Your task to perform on an android device: Search for energizer triple a on target.com, select the first entry, add it to the cart, then select checkout. Image 0: 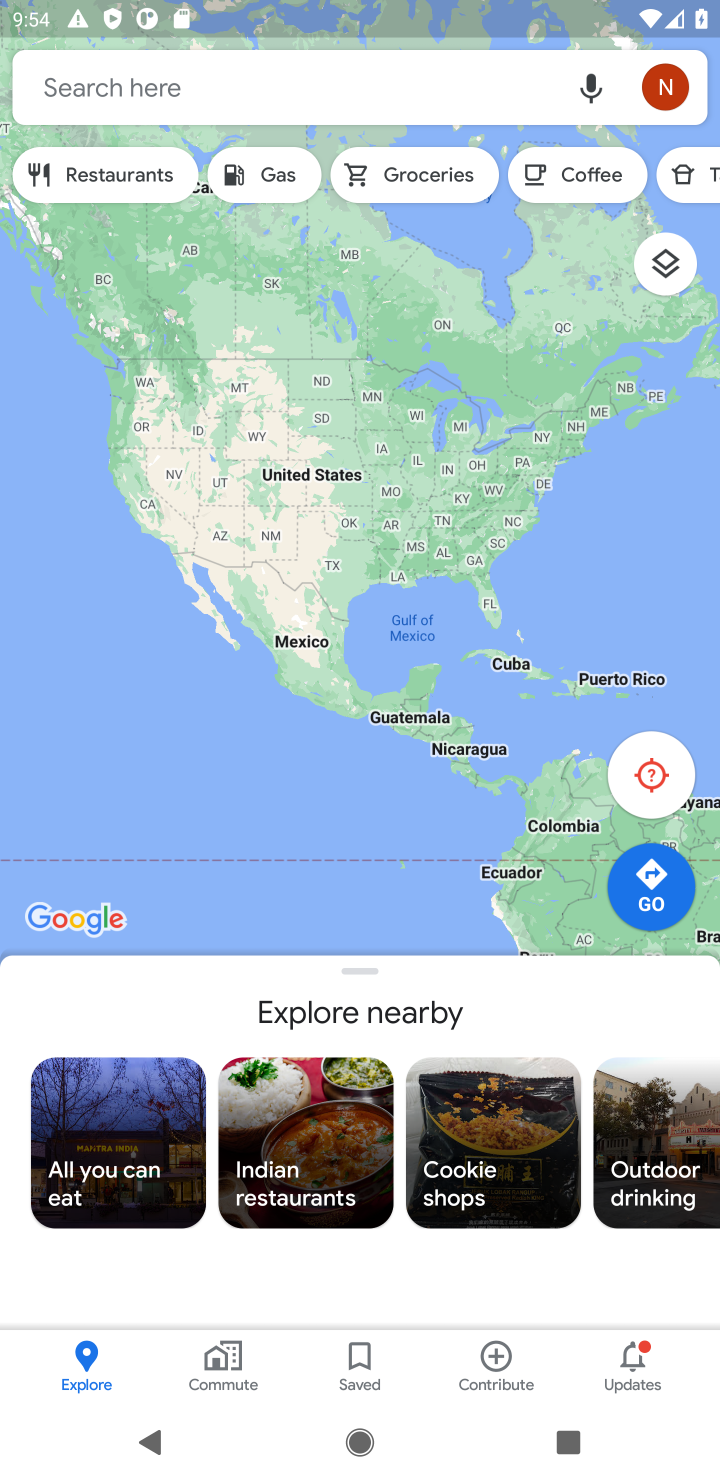
Step 0: press home button
Your task to perform on an android device: Search for energizer triple a on target.com, select the first entry, add it to the cart, then select checkout. Image 1: 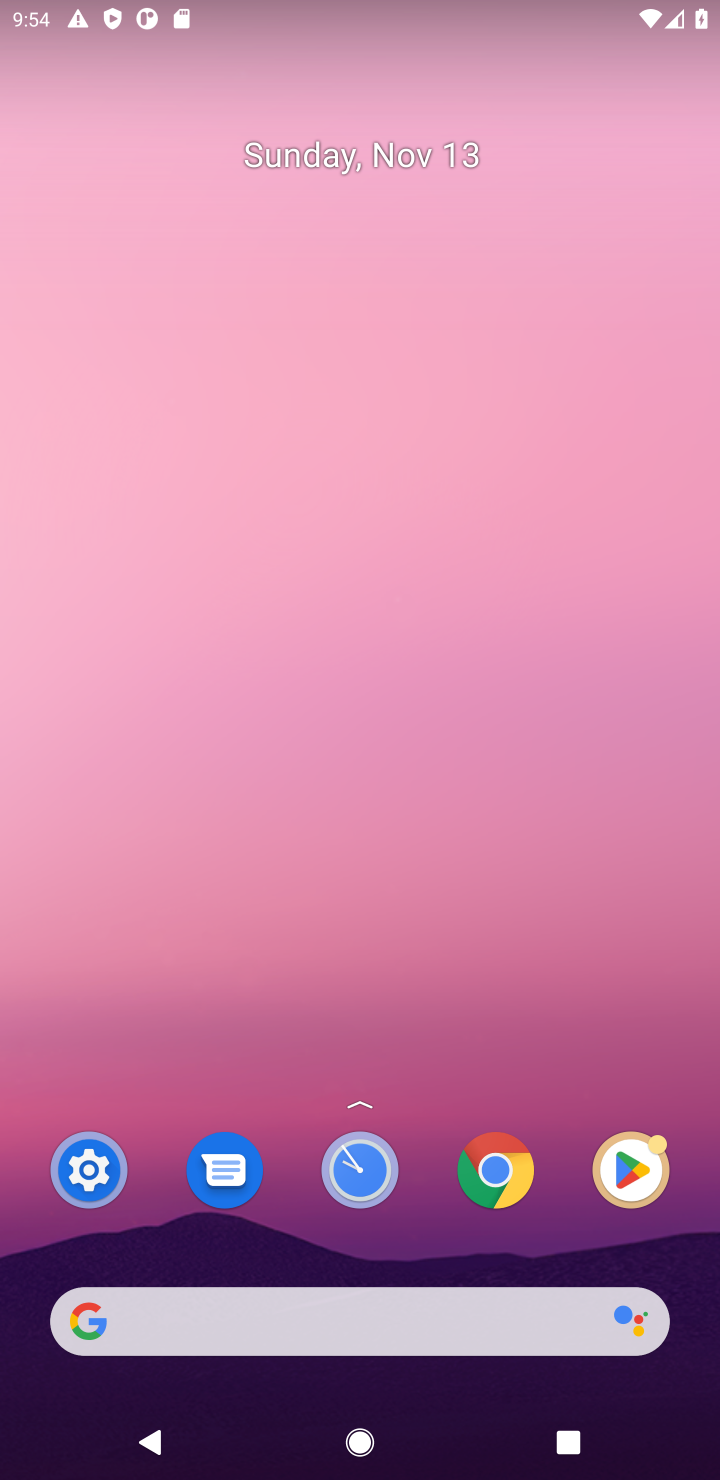
Step 1: click (340, 1338)
Your task to perform on an android device: Search for energizer triple a on target.com, select the first entry, add it to the cart, then select checkout. Image 2: 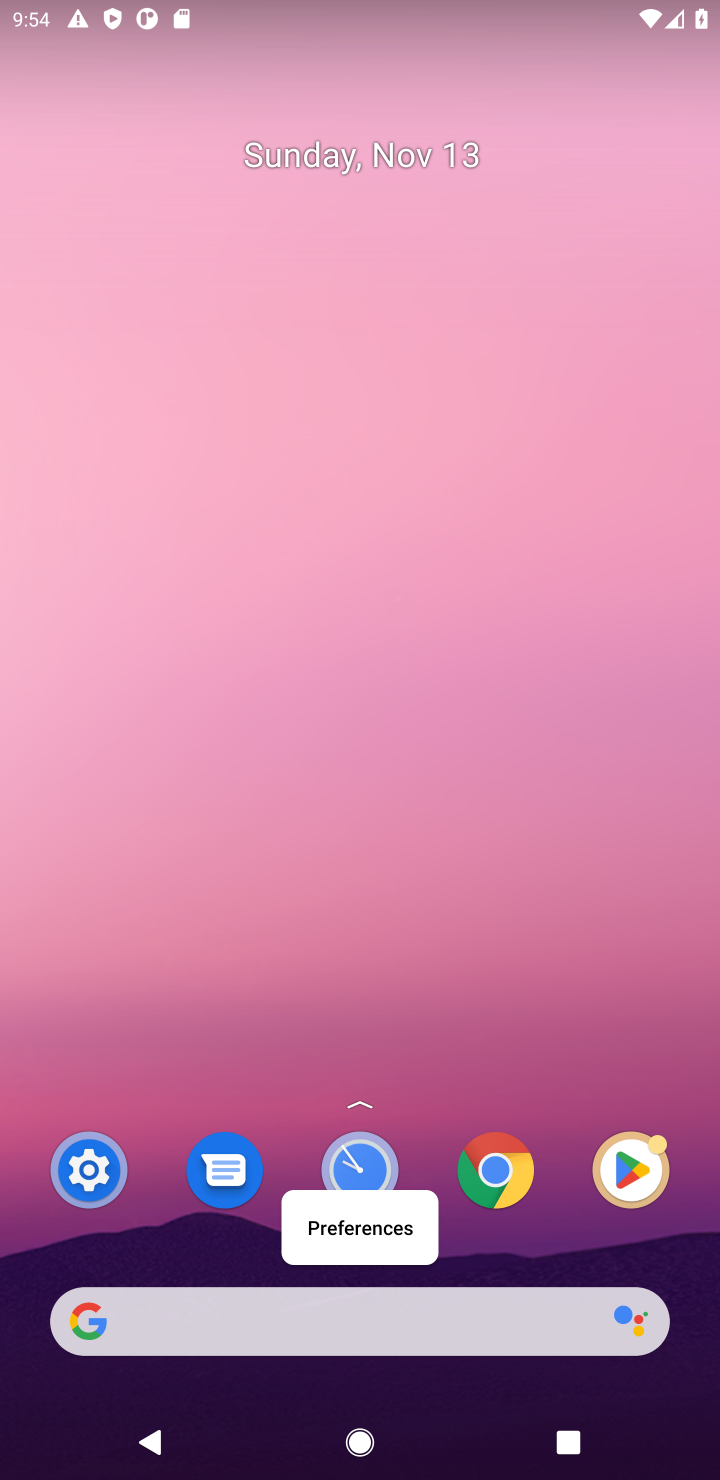
Step 2: type "target.com"
Your task to perform on an android device: Search for energizer triple a on target.com, select the first entry, add it to the cart, then select checkout. Image 3: 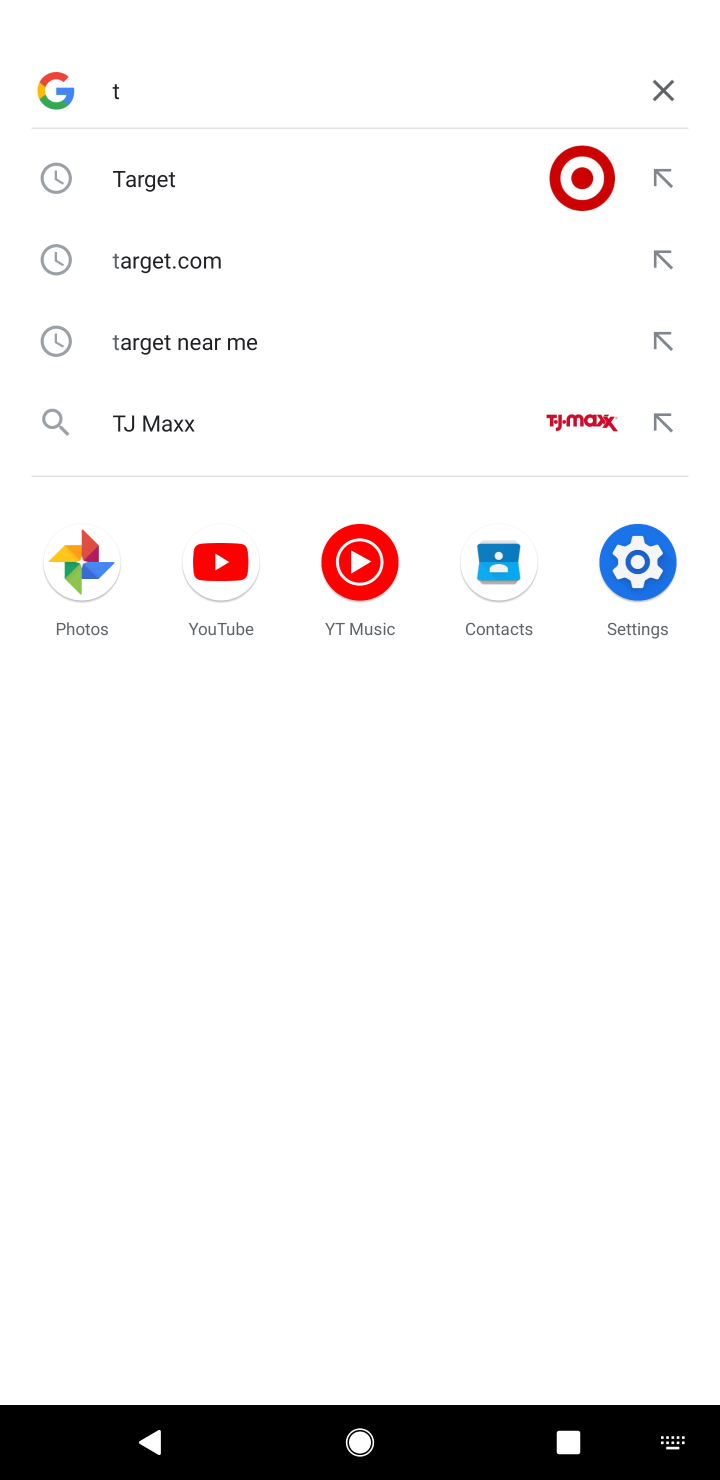
Step 3: click (260, 176)
Your task to perform on an android device: Search for energizer triple a on target.com, select the first entry, add it to the cart, then select checkout. Image 4: 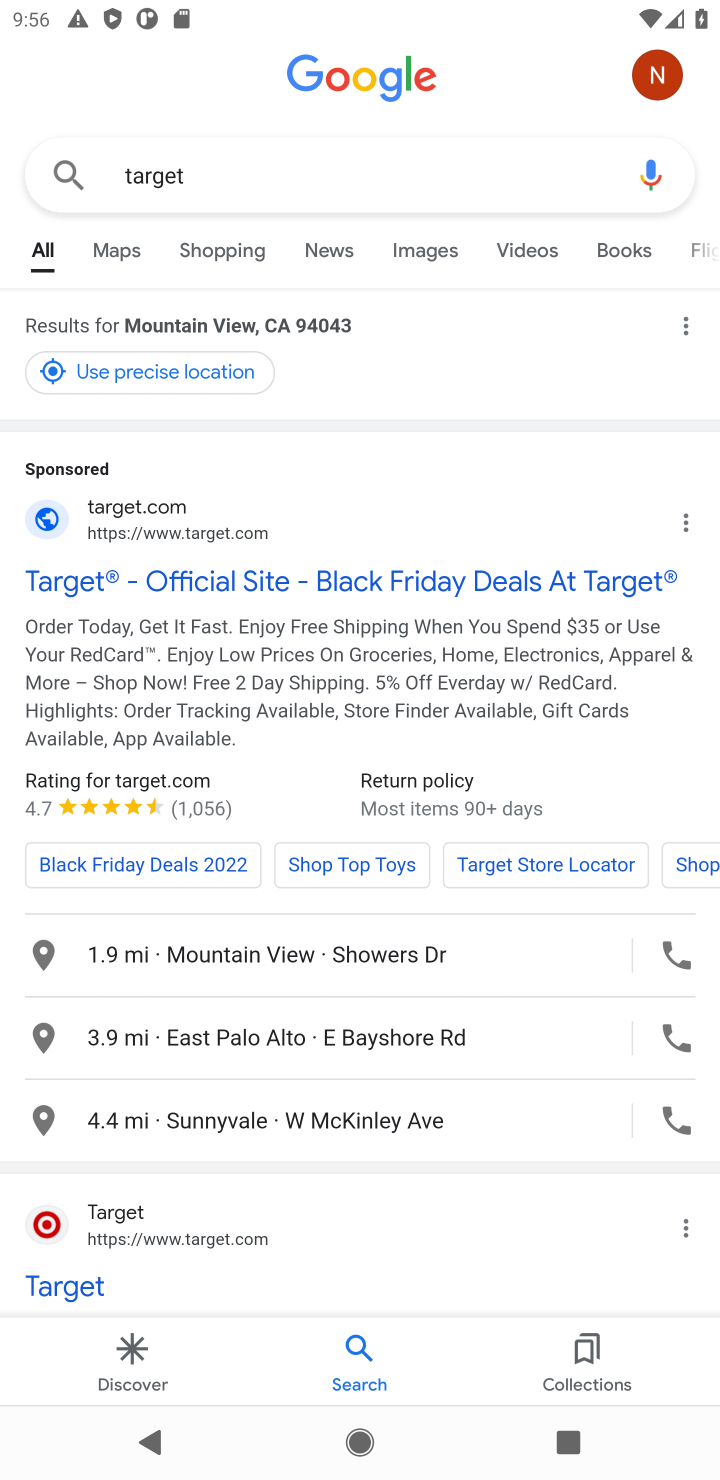
Step 4: click (88, 524)
Your task to perform on an android device: Search for energizer triple a on target.com, select the first entry, add it to the cart, then select checkout. Image 5: 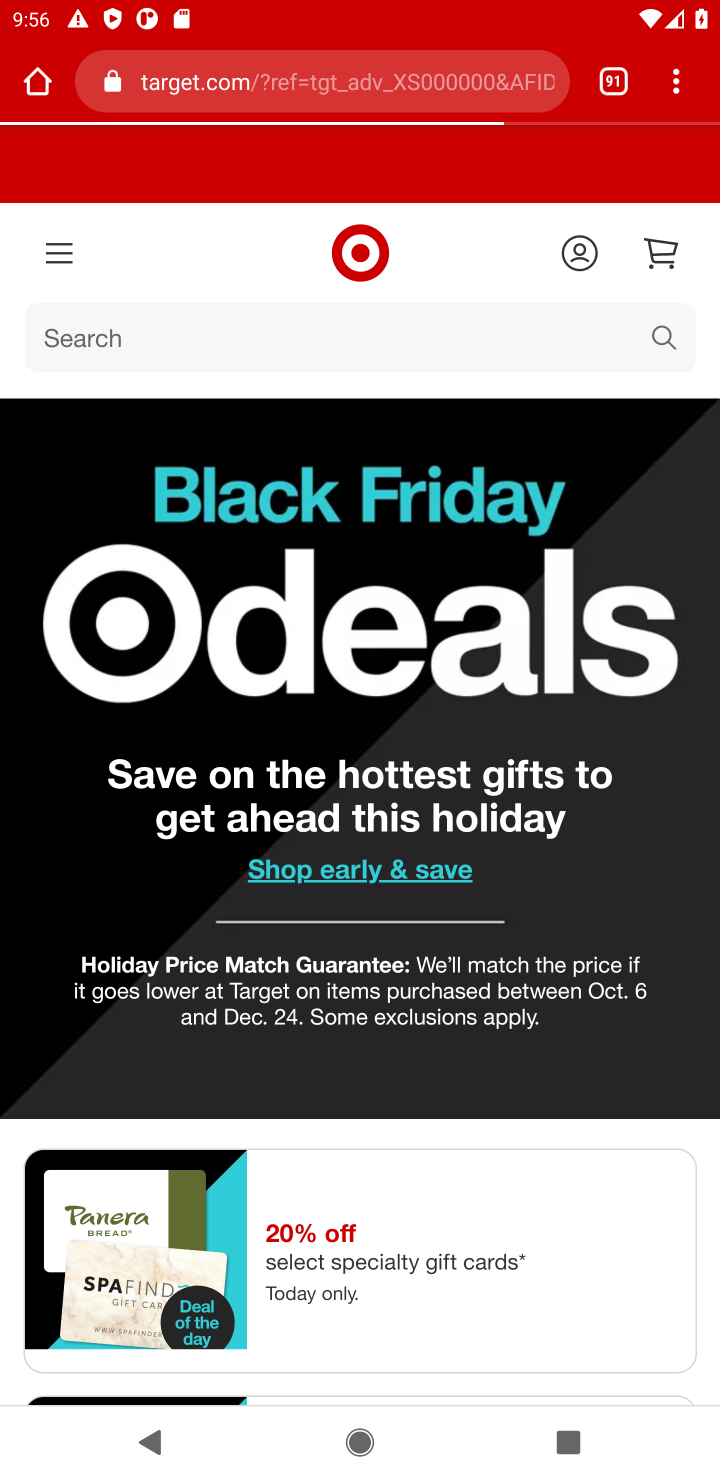
Step 5: task complete